Your task to perform on an android device: create a new album in the google photos Image 0: 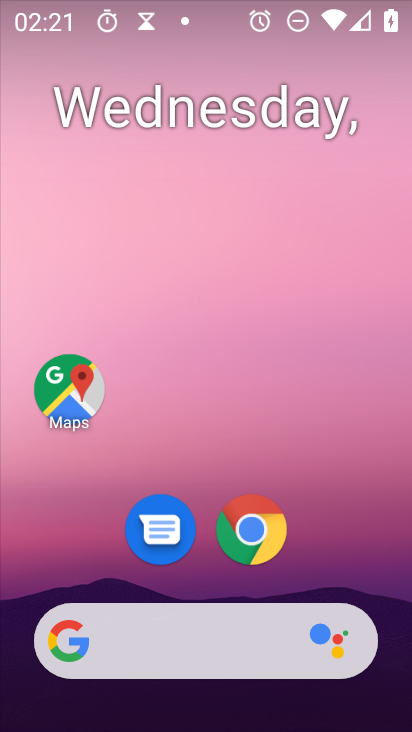
Step 0: drag from (307, 618) to (318, 1)
Your task to perform on an android device: create a new album in the google photos Image 1: 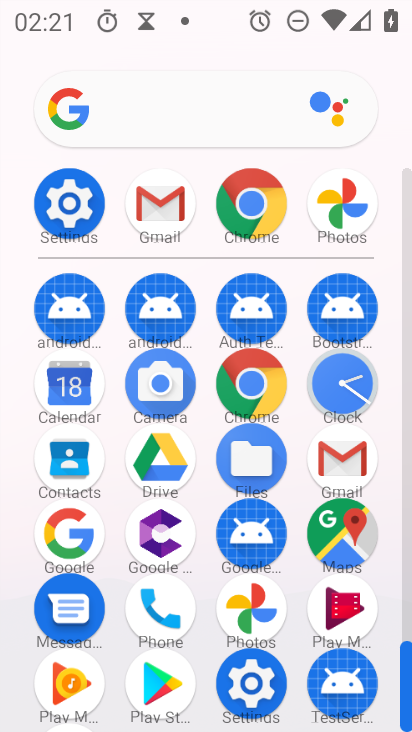
Step 1: click (236, 613)
Your task to perform on an android device: create a new album in the google photos Image 2: 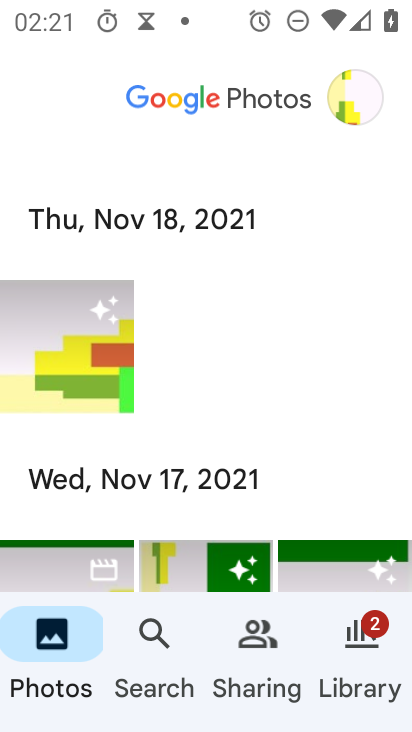
Step 2: click (364, 659)
Your task to perform on an android device: create a new album in the google photos Image 3: 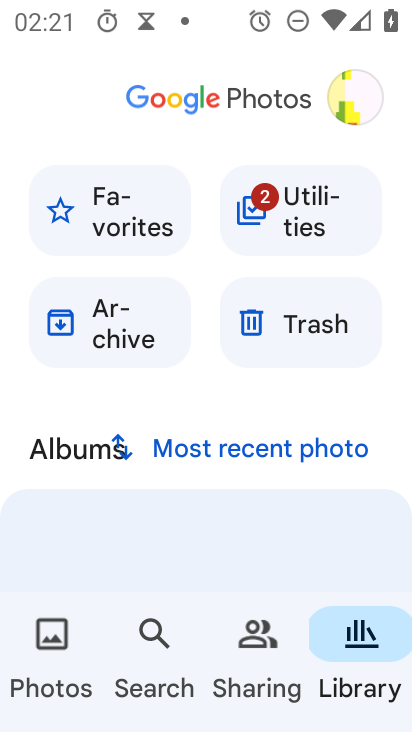
Step 3: drag from (227, 567) to (278, 118)
Your task to perform on an android device: create a new album in the google photos Image 4: 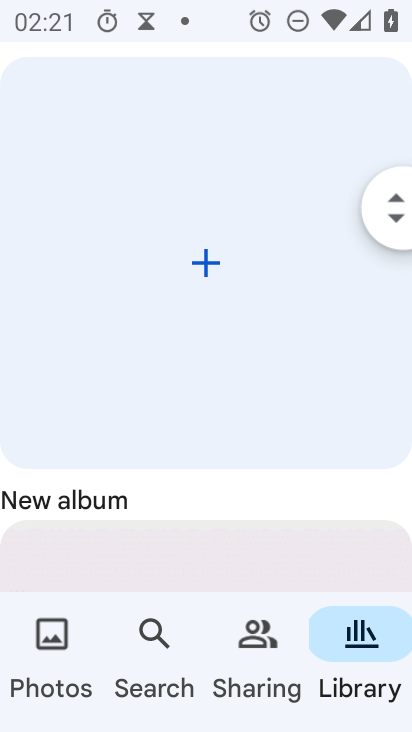
Step 4: click (205, 267)
Your task to perform on an android device: create a new album in the google photos Image 5: 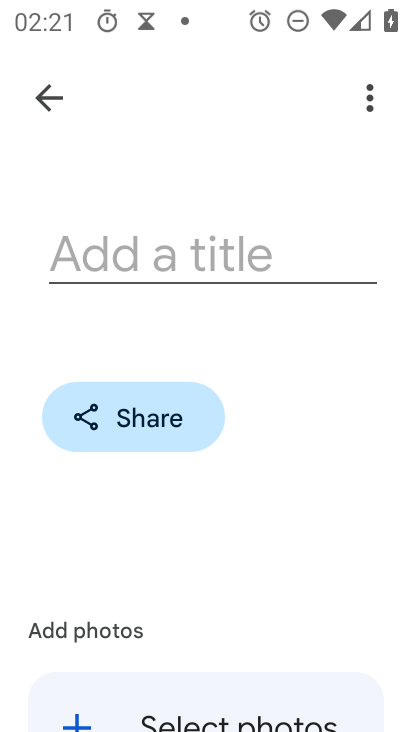
Step 5: click (227, 267)
Your task to perform on an android device: create a new album in the google photos Image 6: 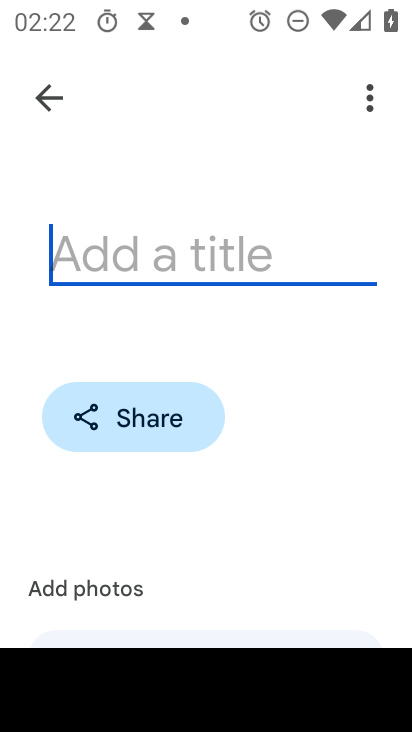
Step 6: type "yhjfjfjfj"
Your task to perform on an android device: create a new album in the google photos Image 7: 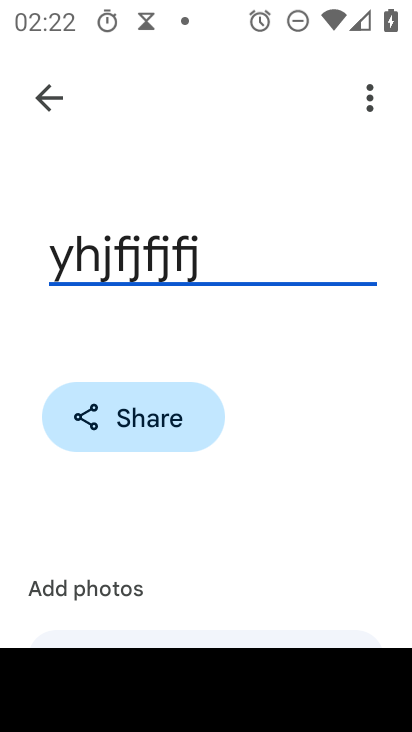
Step 7: click (100, 589)
Your task to perform on an android device: create a new album in the google photos Image 8: 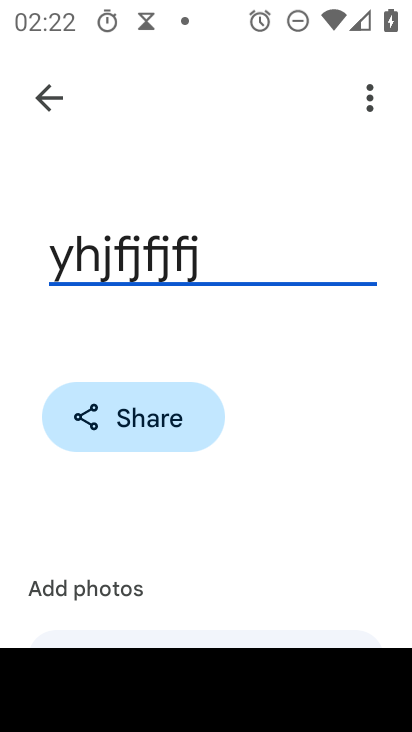
Step 8: drag from (266, 599) to (259, 186)
Your task to perform on an android device: create a new album in the google photos Image 9: 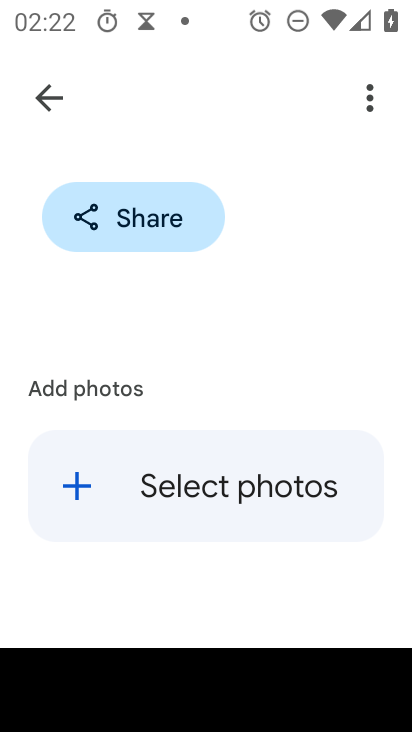
Step 9: click (161, 576)
Your task to perform on an android device: create a new album in the google photos Image 10: 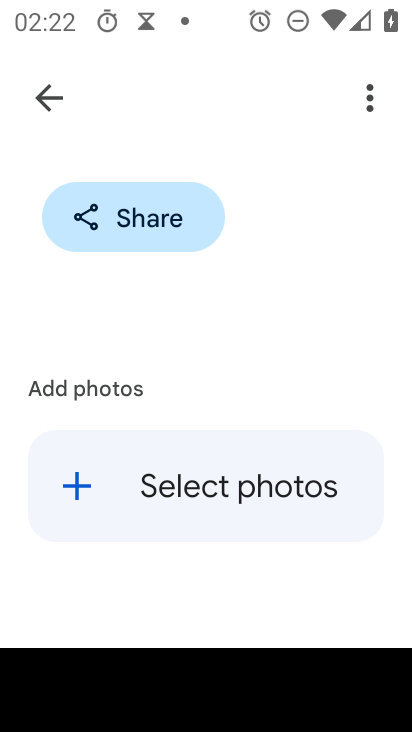
Step 10: click (69, 484)
Your task to perform on an android device: create a new album in the google photos Image 11: 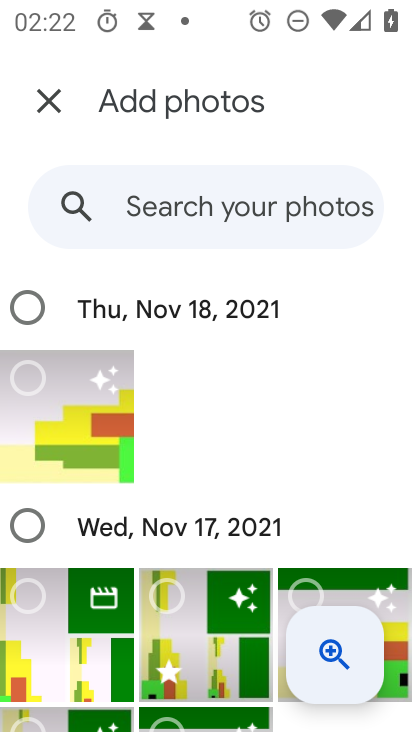
Step 11: click (84, 424)
Your task to perform on an android device: create a new album in the google photos Image 12: 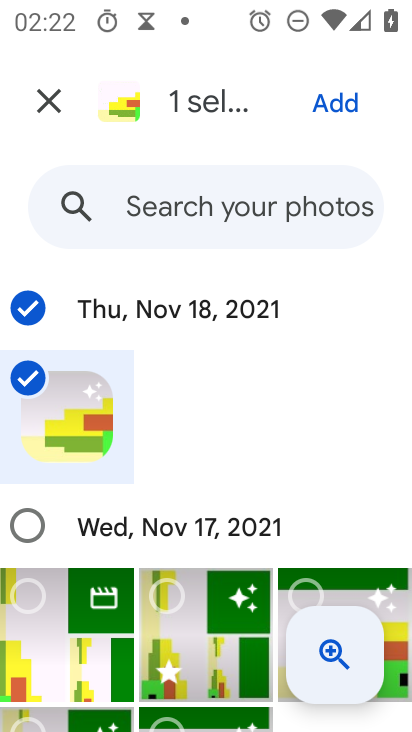
Step 12: click (339, 102)
Your task to perform on an android device: create a new album in the google photos Image 13: 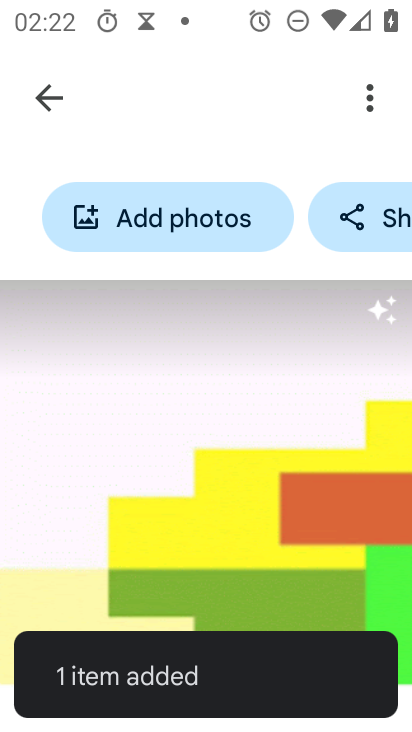
Step 13: task complete